Your task to perform on an android device: Open Google Maps and go to "Timeline" Image 0: 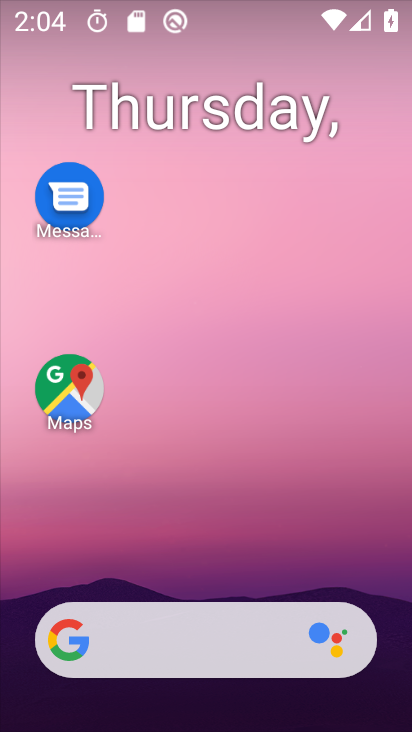
Step 0: click (80, 391)
Your task to perform on an android device: Open Google Maps and go to "Timeline" Image 1: 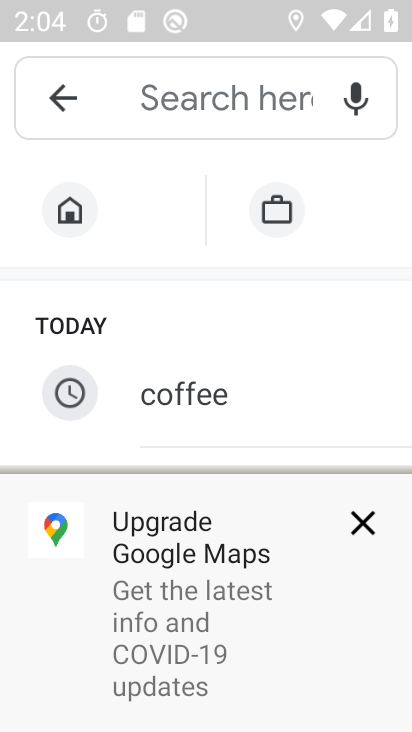
Step 1: click (72, 104)
Your task to perform on an android device: Open Google Maps and go to "Timeline" Image 2: 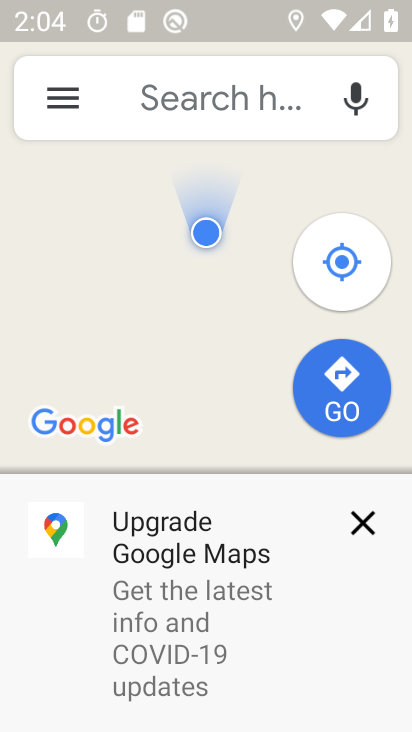
Step 2: click (66, 98)
Your task to perform on an android device: Open Google Maps and go to "Timeline" Image 3: 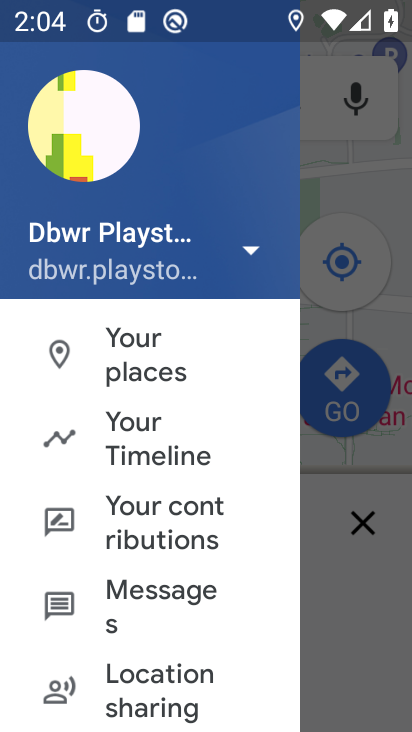
Step 3: click (129, 437)
Your task to perform on an android device: Open Google Maps and go to "Timeline" Image 4: 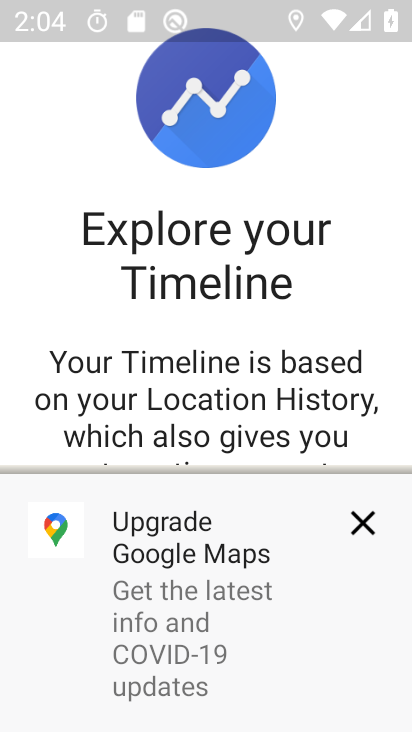
Step 4: task complete